Your task to perform on an android device: change the clock display to digital Image 0: 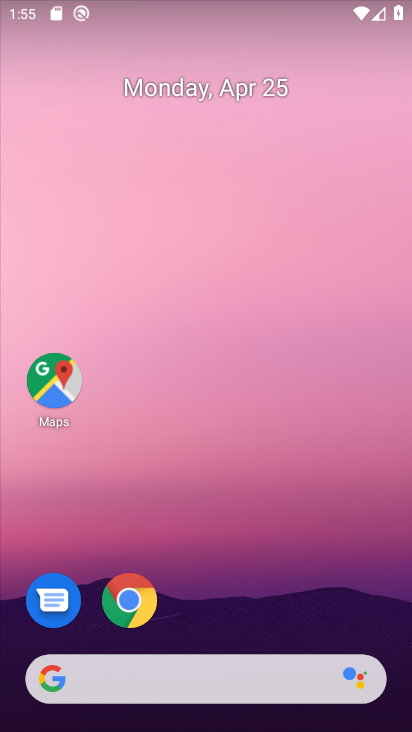
Step 0: drag from (265, 539) to (270, 68)
Your task to perform on an android device: change the clock display to digital Image 1: 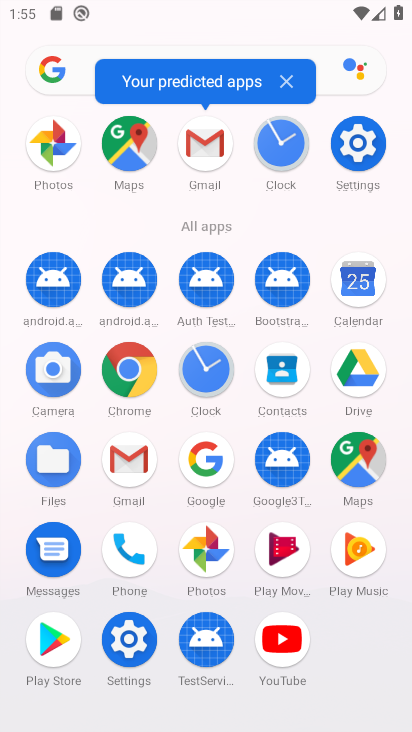
Step 1: click (223, 375)
Your task to perform on an android device: change the clock display to digital Image 2: 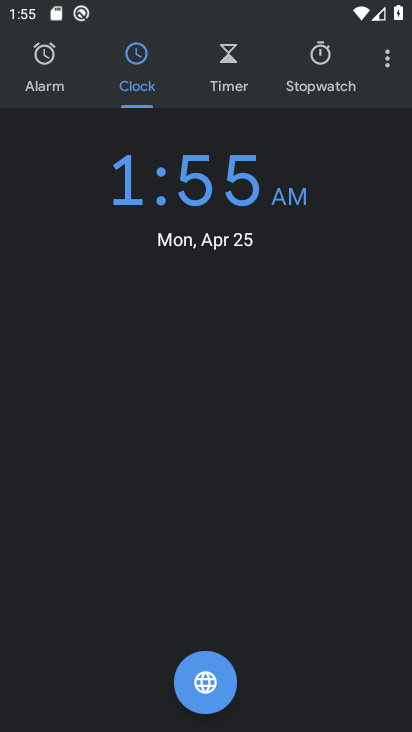
Step 2: click (386, 75)
Your task to perform on an android device: change the clock display to digital Image 3: 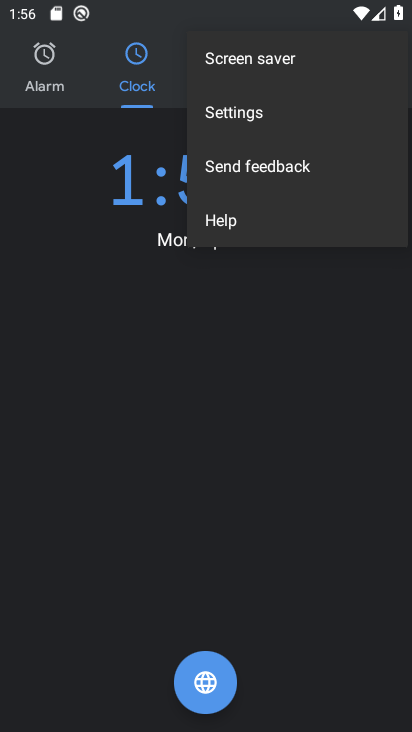
Step 3: click (276, 116)
Your task to perform on an android device: change the clock display to digital Image 4: 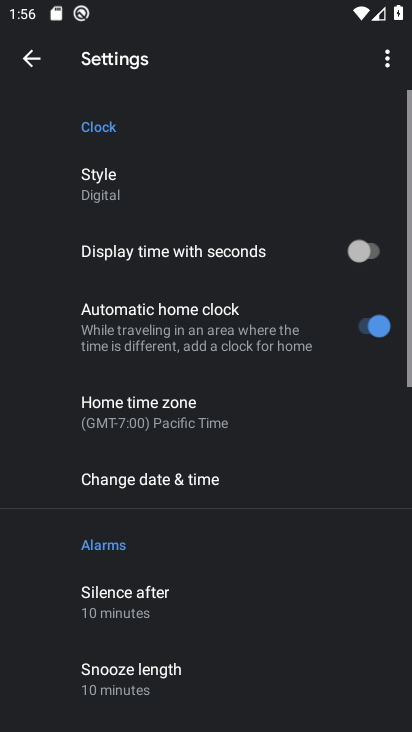
Step 4: click (166, 187)
Your task to perform on an android device: change the clock display to digital Image 5: 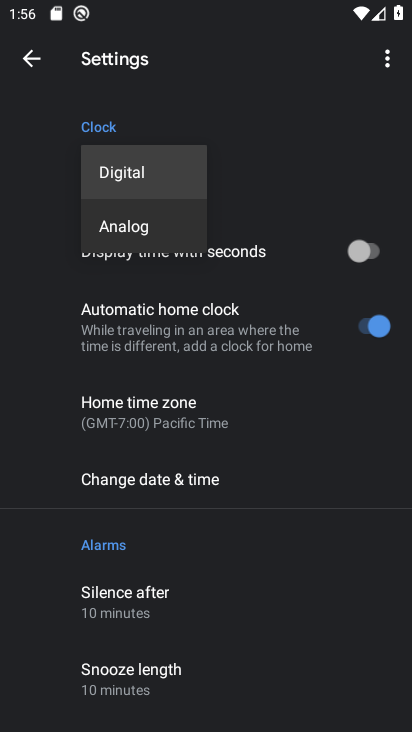
Step 5: task complete